Your task to perform on an android device: Open Amazon Image 0: 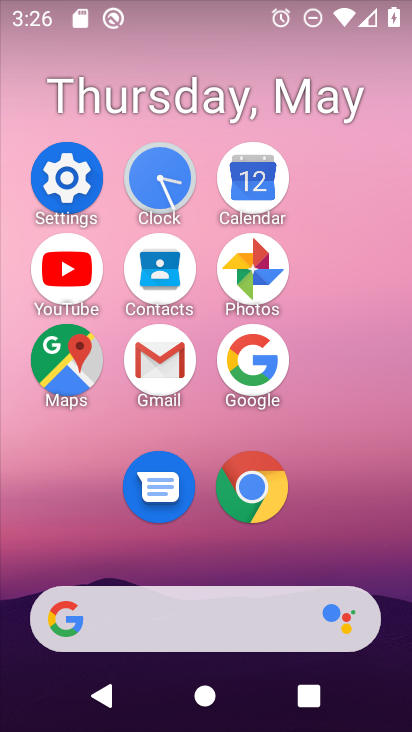
Step 0: click (246, 480)
Your task to perform on an android device: Open Amazon Image 1: 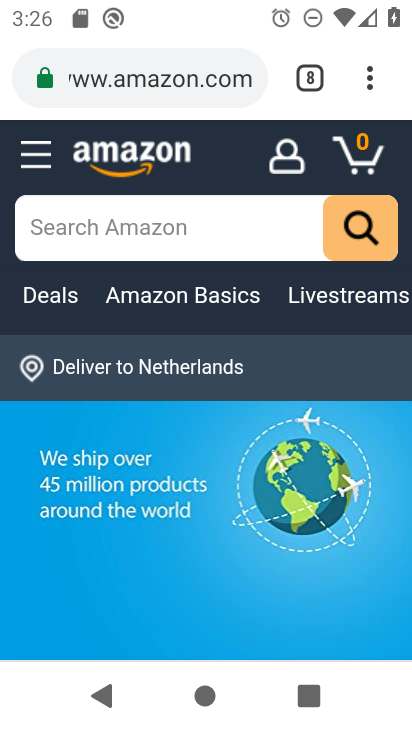
Step 1: task complete